Your task to perform on an android device: toggle improve location accuracy Image 0: 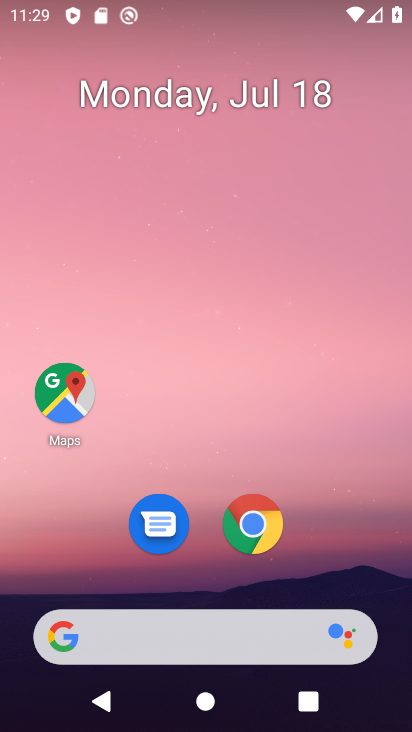
Step 0: drag from (314, 499) to (318, 19)
Your task to perform on an android device: toggle improve location accuracy Image 1: 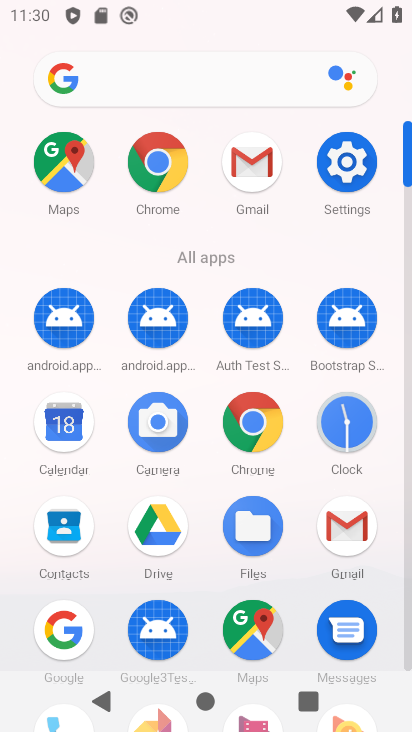
Step 1: click (352, 154)
Your task to perform on an android device: toggle improve location accuracy Image 2: 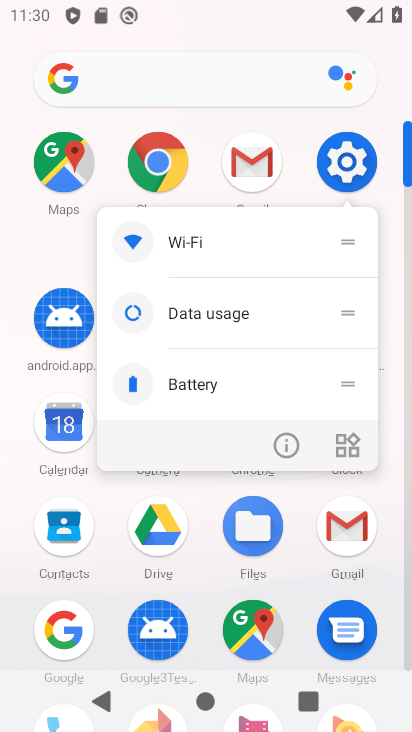
Step 2: click (352, 154)
Your task to perform on an android device: toggle improve location accuracy Image 3: 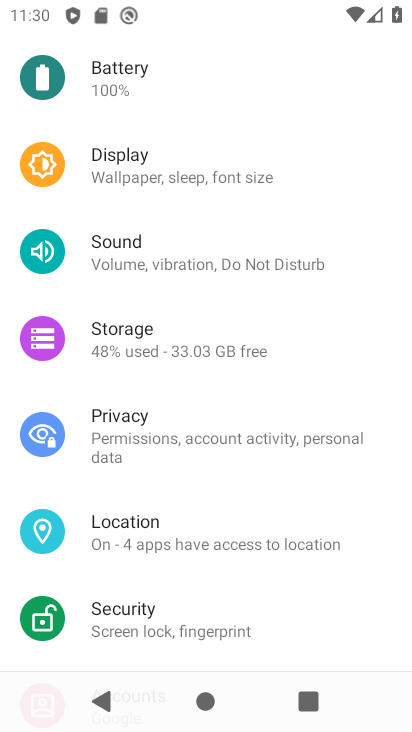
Step 3: click (176, 540)
Your task to perform on an android device: toggle improve location accuracy Image 4: 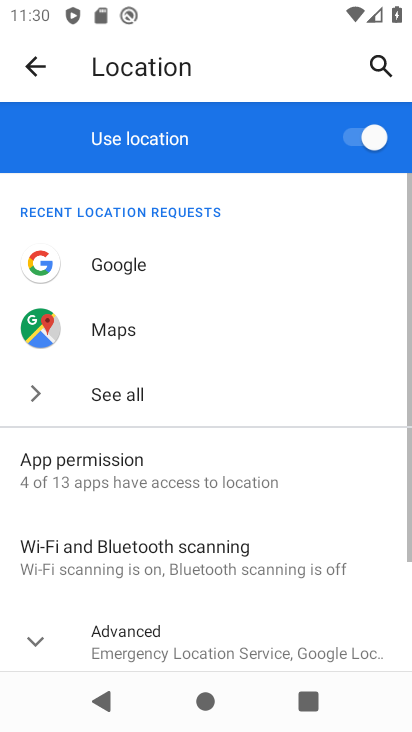
Step 4: click (34, 639)
Your task to perform on an android device: toggle improve location accuracy Image 5: 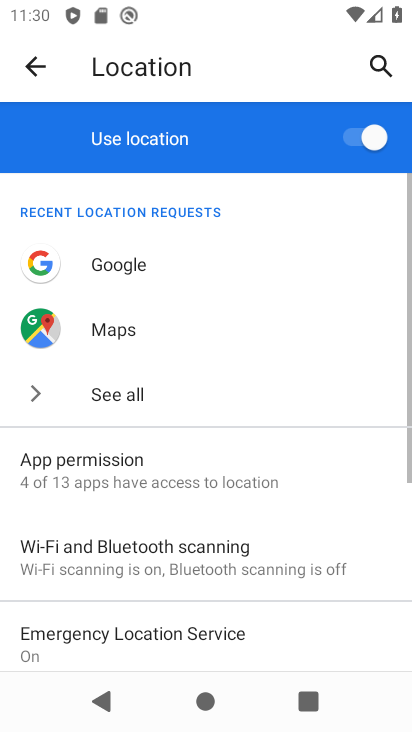
Step 5: drag from (246, 511) to (326, 192)
Your task to perform on an android device: toggle improve location accuracy Image 6: 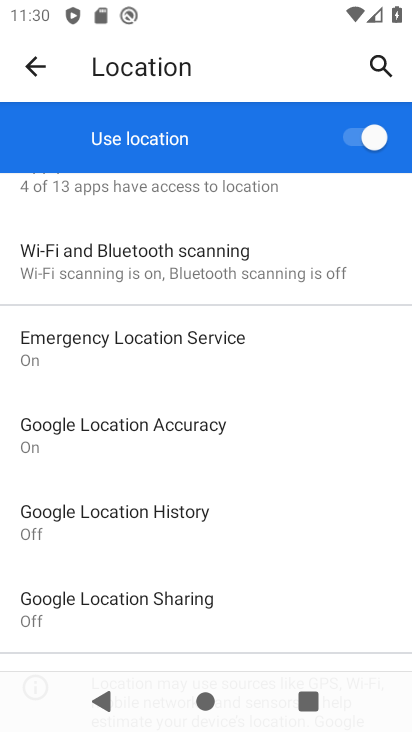
Step 6: click (187, 422)
Your task to perform on an android device: toggle improve location accuracy Image 7: 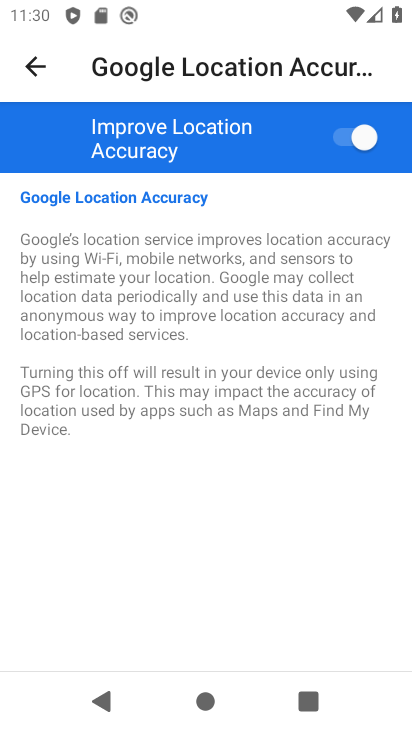
Step 7: click (359, 128)
Your task to perform on an android device: toggle improve location accuracy Image 8: 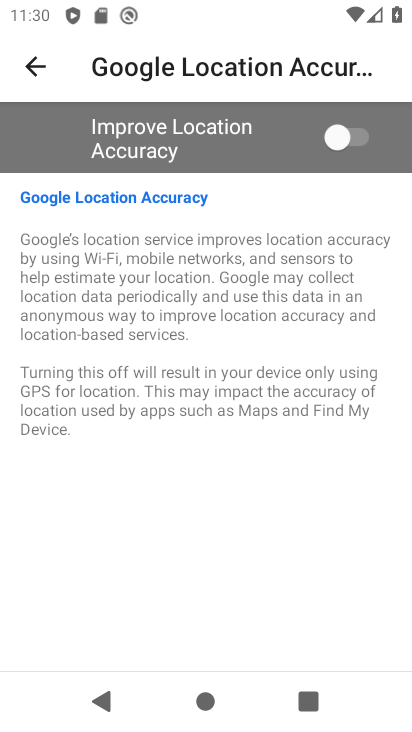
Step 8: task complete